Your task to perform on an android device: Set the phone to "Do not disturb". Image 0: 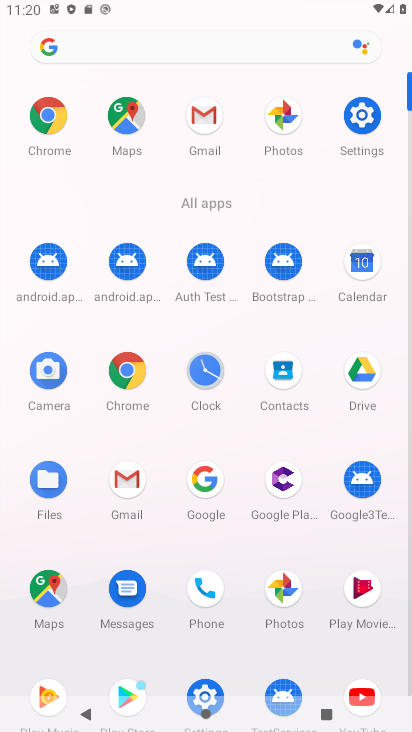
Step 0: click (360, 115)
Your task to perform on an android device: Set the phone to "Do not disturb". Image 1: 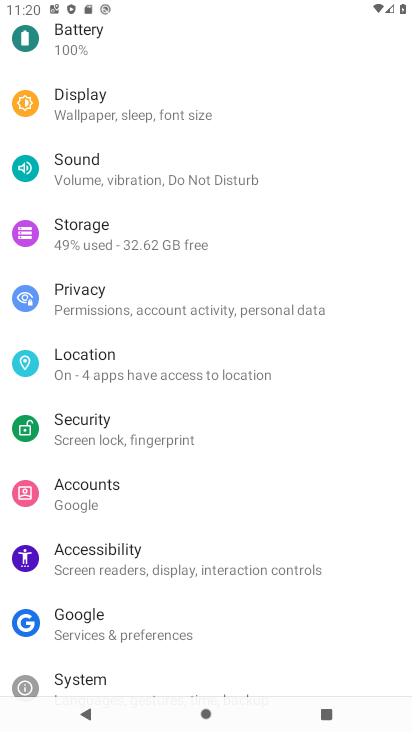
Step 1: click (220, 170)
Your task to perform on an android device: Set the phone to "Do not disturb". Image 2: 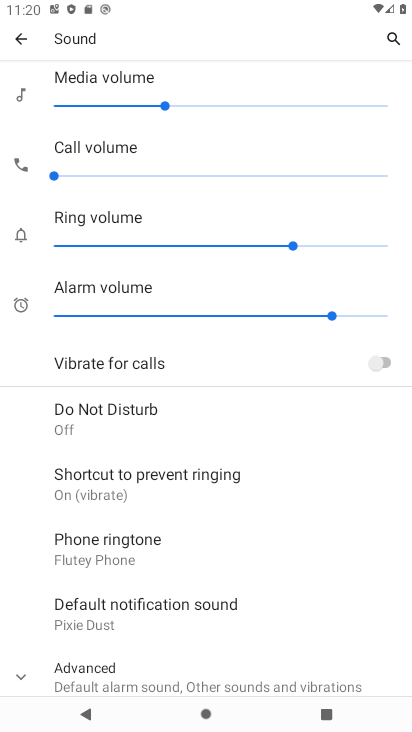
Step 2: click (129, 423)
Your task to perform on an android device: Set the phone to "Do not disturb". Image 3: 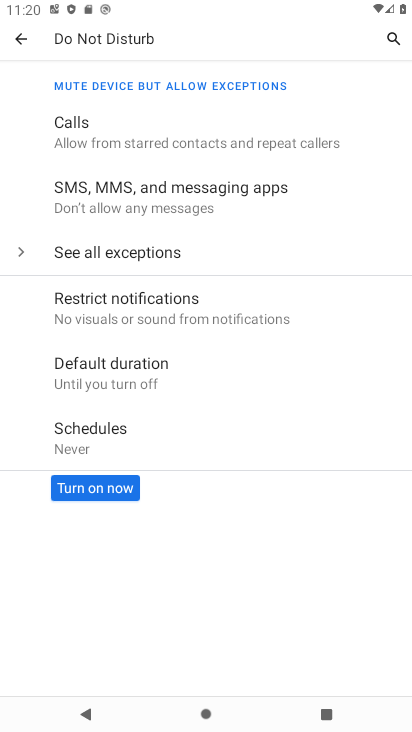
Step 3: click (116, 490)
Your task to perform on an android device: Set the phone to "Do not disturb". Image 4: 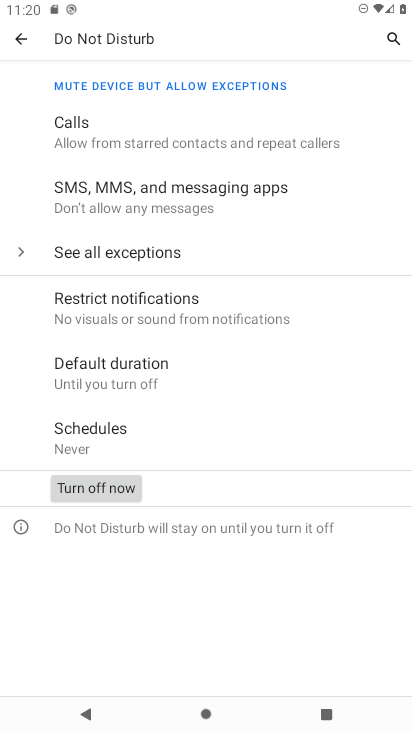
Step 4: task complete